Your task to perform on an android device: Show me popular videos on Youtube Image 0: 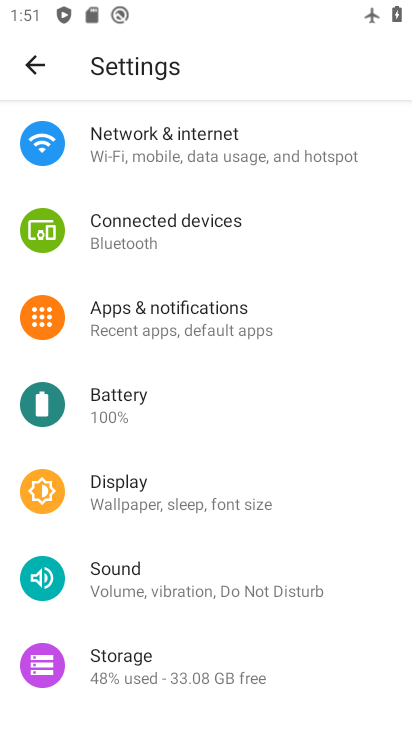
Step 0: press home button
Your task to perform on an android device: Show me popular videos on Youtube Image 1: 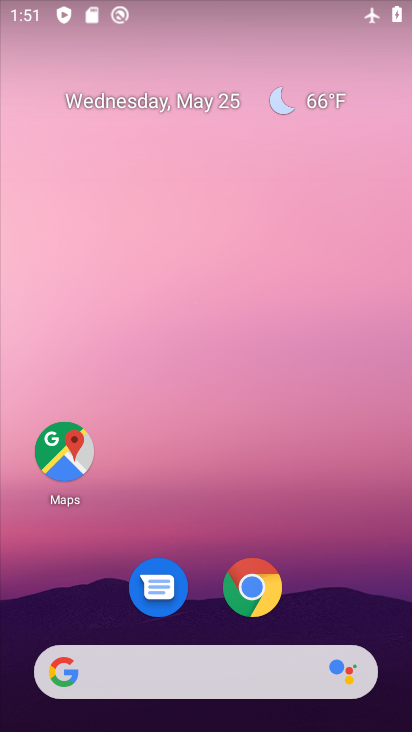
Step 1: drag from (373, 624) to (394, 256)
Your task to perform on an android device: Show me popular videos on Youtube Image 2: 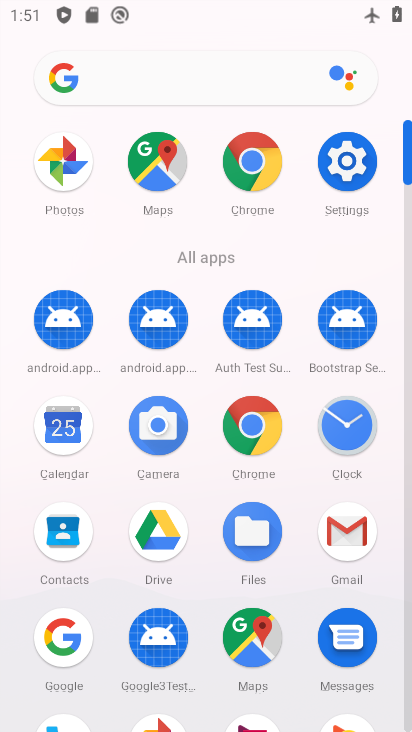
Step 2: drag from (388, 591) to (391, 374)
Your task to perform on an android device: Show me popular videos on Youtube Image 3: 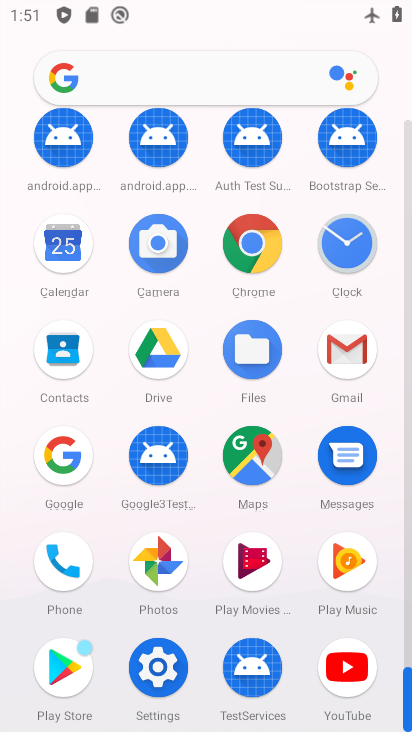
Step 3: click (363, 678)
Your task to perform on an android device: Show me popular videos on Youtube Image 4: 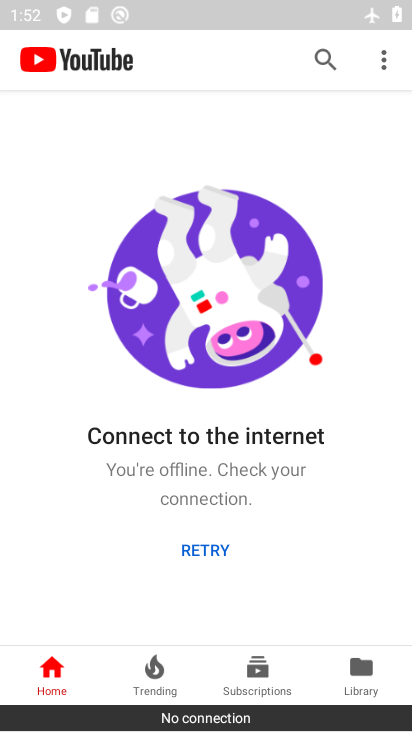
Step 4: task complete